Your task to perform on an android device: turn on location history Image 0: 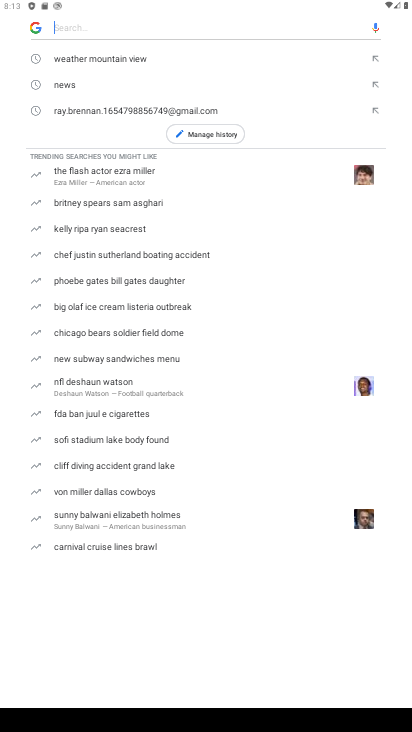
Step 0: press home button
Your task to perform on an android device: turn on location history Image 1: 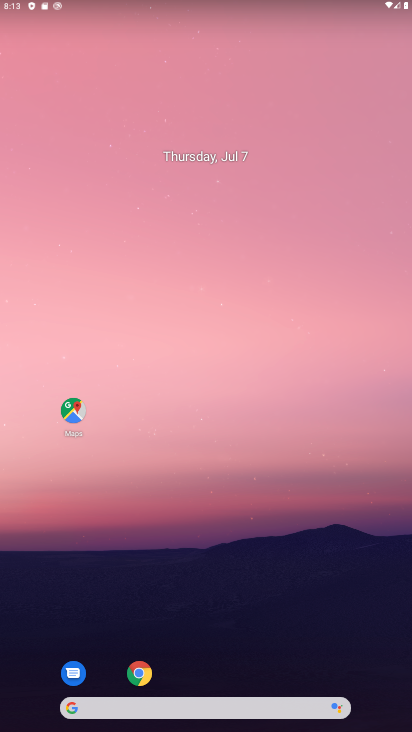
Step 1: drag from (210, 670) to (155, 137)
Your task to perform on an android device: turn on location history Image 2: 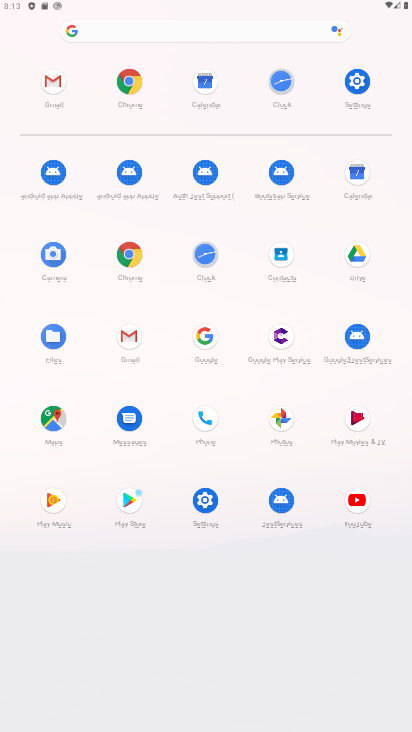
Step 2: click (195, 504)
Your task to perform on an android device: turn on location history Image 3: 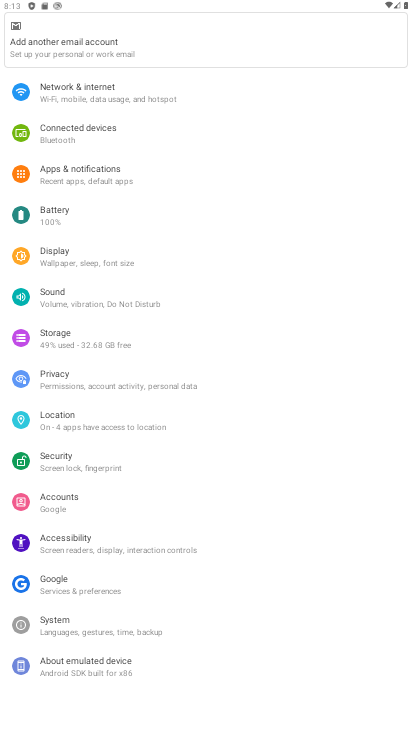
Step 3: click (85, 436)
Your task to perform on an android device: turn on location history Image 4: 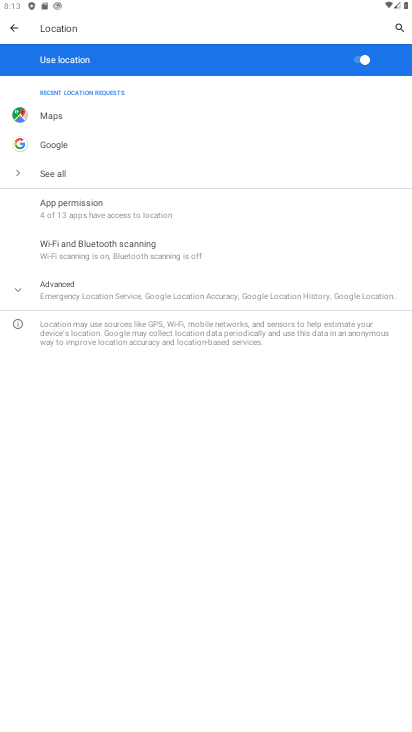
Step 4: click (31, 294)
Your task to perform on an android device: turn on location history Image 5: 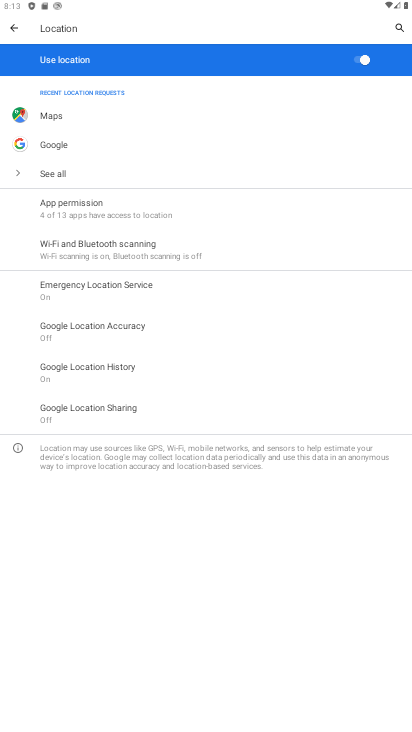
Step 5: click (118, 372)
Your task to perform on an android device: turn on location history Image 6: 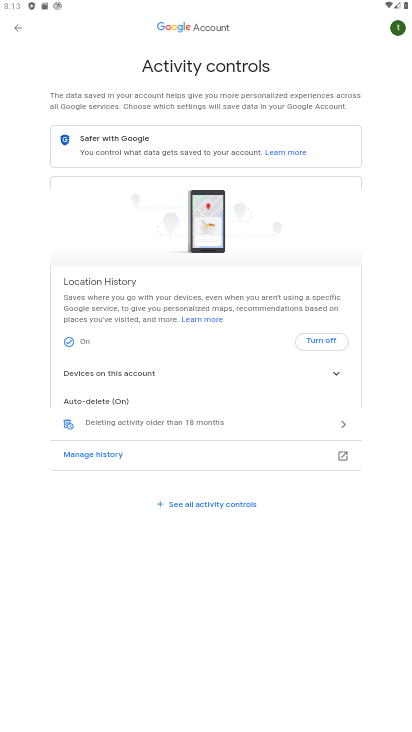
Step 6: task complete